Your task to perform on an android device: When is my next meeting? Image 0: 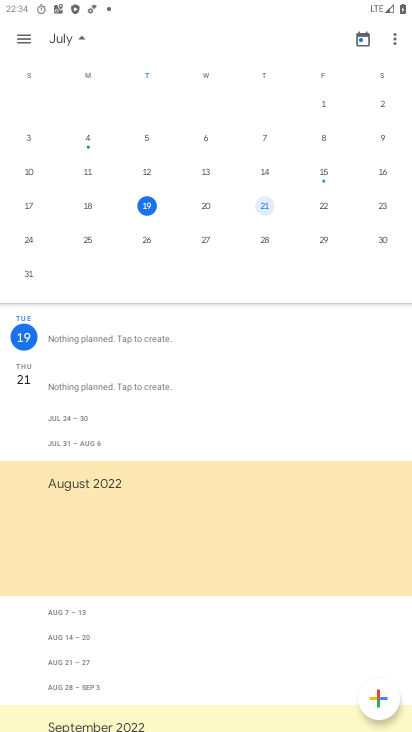
Step 0: click (210, 213)
Your task to perform on an android device: When is my next meeting? Image 1: 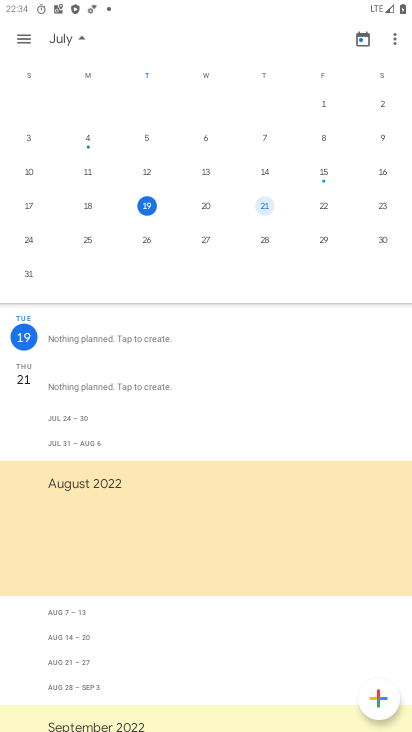
Step 1: click (203, 210)
Your task to perform on an android device: When is my next meeting? Image 2: 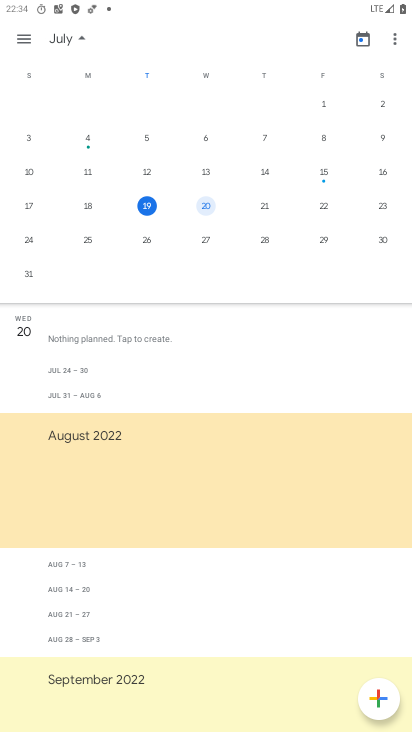
Step 2: click (83, 42)
Your task to perform on an android device: When is my next meeting? Image 3: 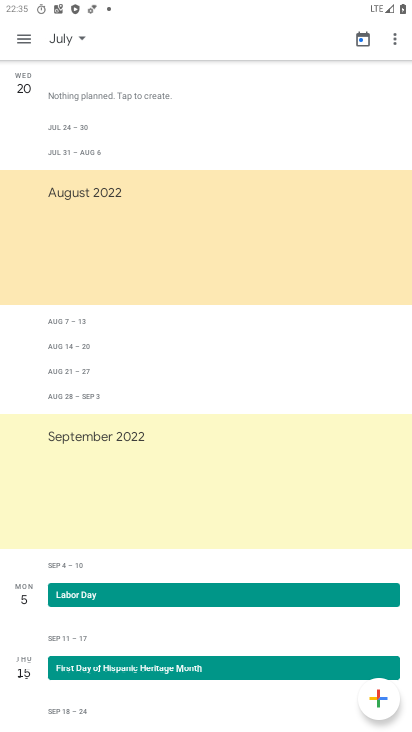
Step 3: task complete